Your task to perform on an android device: Show me recent news Image 0: 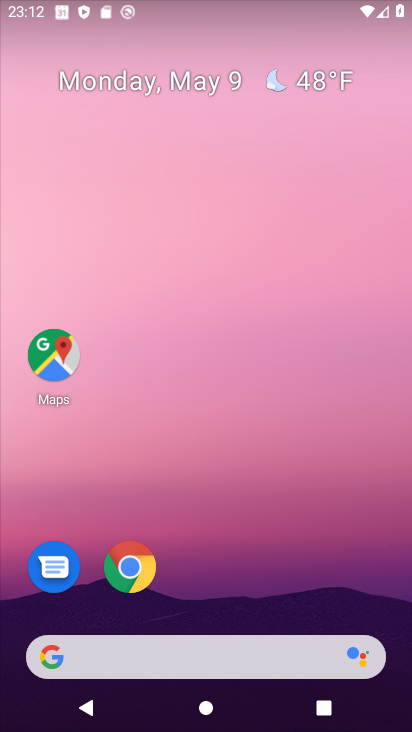
Step 0: drag from (255, 560) to (236, 127)
Your task to perform on an android device: Show me recent news Image 1: 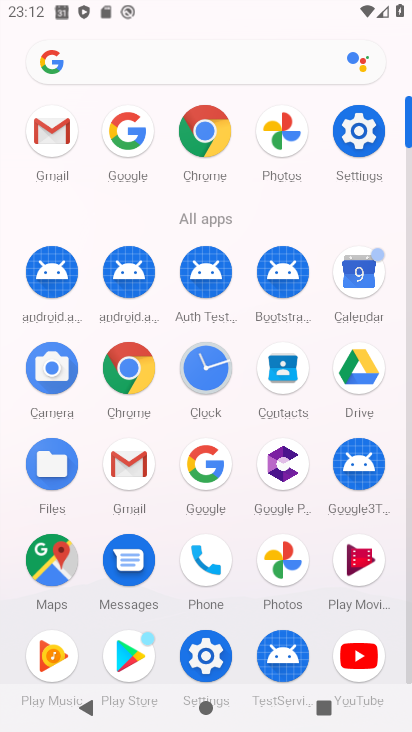
Step 1: click (124, 130)
Your task to perform on an android device: Show me recent news Image 2: 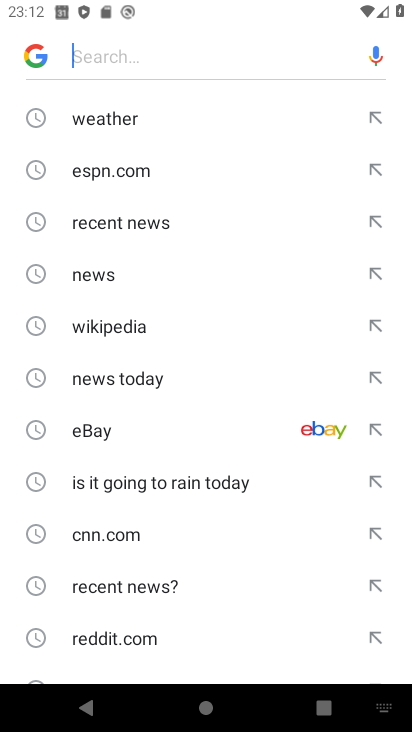
Step 2: click (140, 217)
Your task to perform on an android device: Show me recent news Image 3: 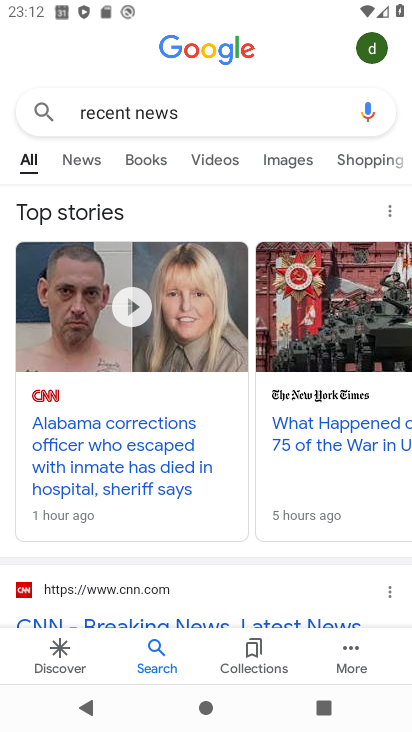
Step 3: task complete